Your task to perform on an android device: toggle improve location accuracy Image 0: 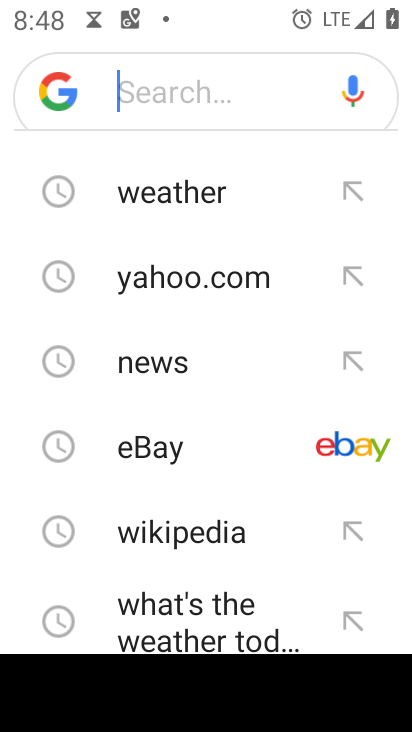
Step 0: press home button
Your task to perform on an android device: toggle improve location accuracy Image 1: 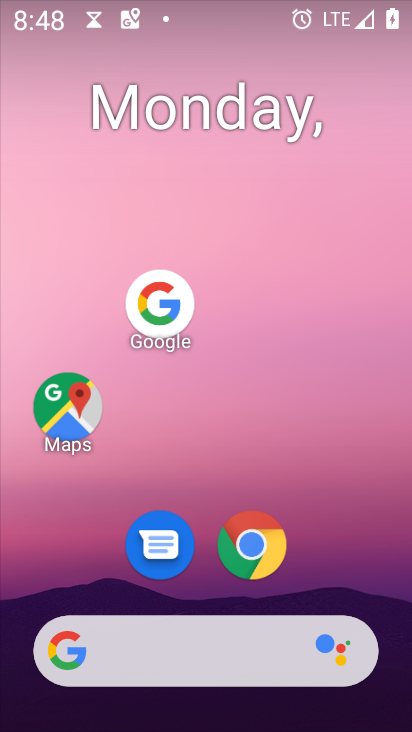
Step 1: drag from (211, 656) to (262, 136)
Your task to perform on an android device: toggle improve location accuracy Image 2: 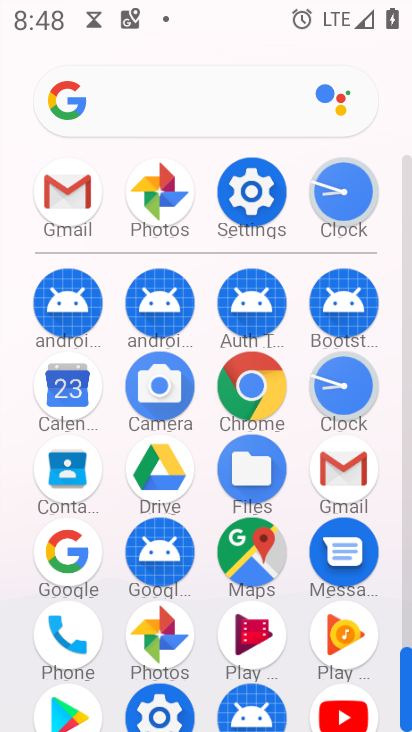
Step 2: click (266, 193)
Your task to perform on an android device: toggle improve location accuracy Image 3: 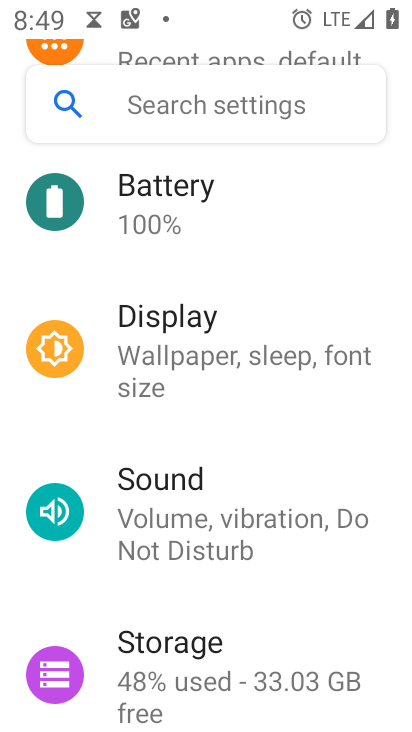
Step 3: drag from (259, 230) to (206, 669)
Your task to perform on an android device: toggle improve location accuracy Image 4: 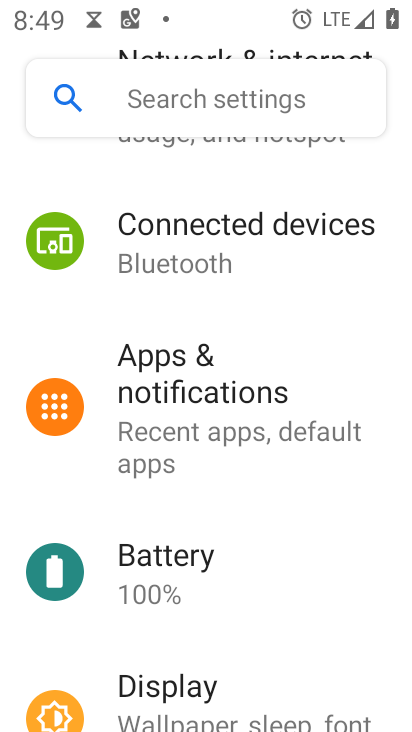
Step 4: drag from (295, 330) to (267, 650)
Your task to perform on an android device: toggle improve location accuracy Image 5: 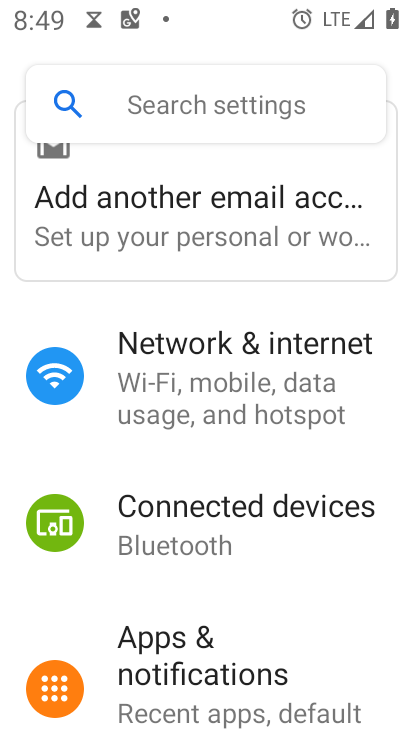
Step 5: drag from (281, 676) to (345, 150)
Your task to perform on an android device: toggle improve location accuracy Image 6: 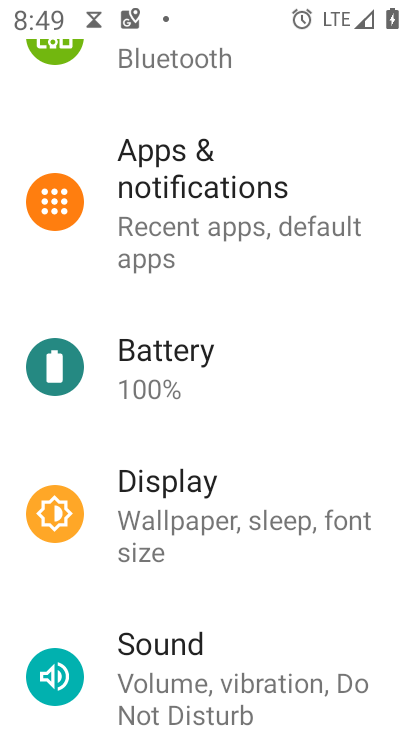
Step 6: drag from (250, 639) to (311, 83)
Your task to perform on an android device: toggle improve location accuracy Image 7: 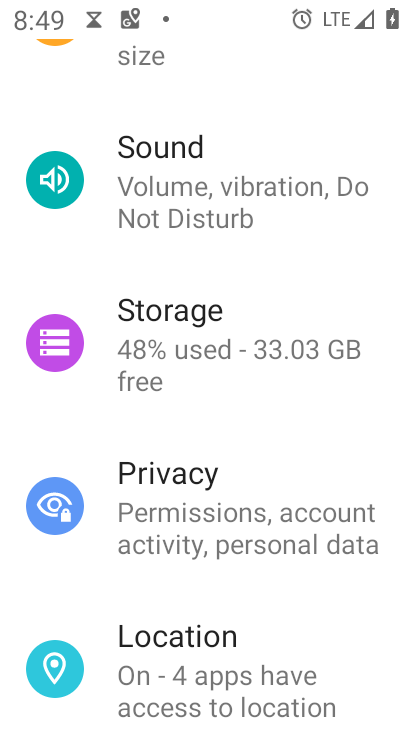
Step 7: click (213, 650)
Your task to perform on an android device: toggle improve location accuracy Image 8: 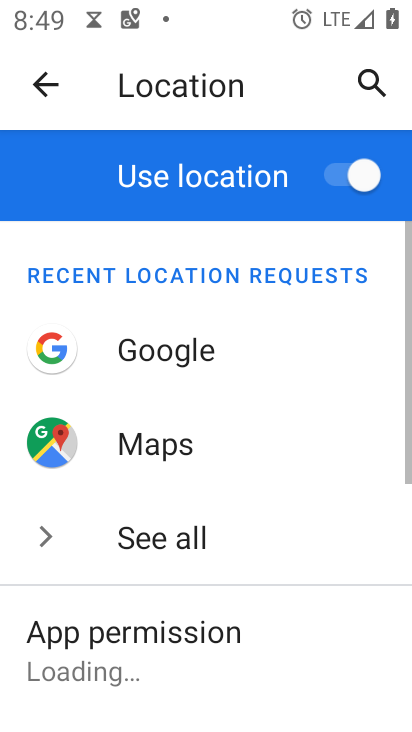
Step 8: drag from (215, 670) to (308, 106)
Your task to perform on an android device: toggle improve location accuracy Image 9: 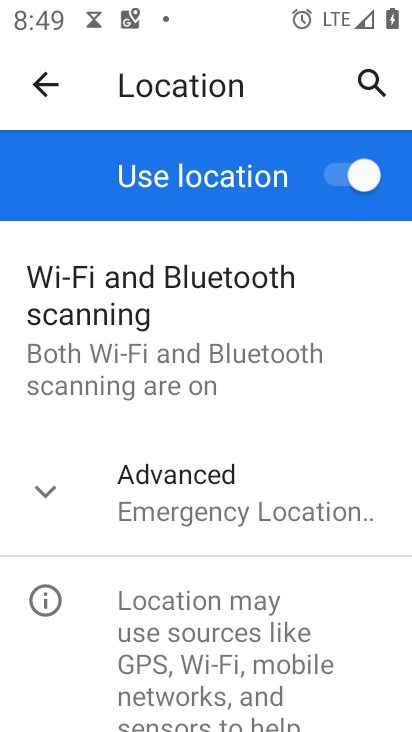
Step 9: click (188, 479)
Your task to perform on an android device: toggle improve location accuracy Image 10: 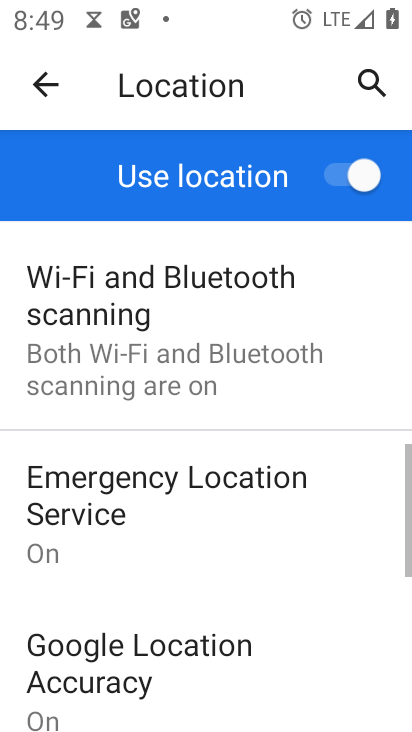
Step 10: drag from (265, 616) to (321, 315)
Your task to perform on an android device: toggle improve location accuracy Image 11: 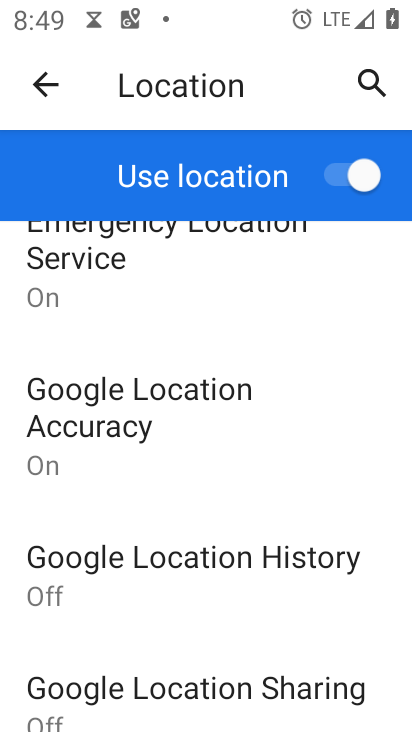
Step 11: click (130, 433)
Your task to perform on an android device: toggle improve location accuracy Image 12: 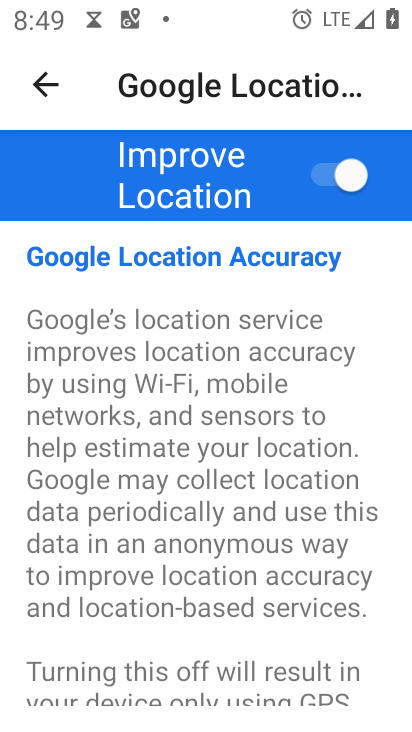
Step 12: click (332, 178)
Your task to perform on an android device: toggle improve location accuracy Image 13: 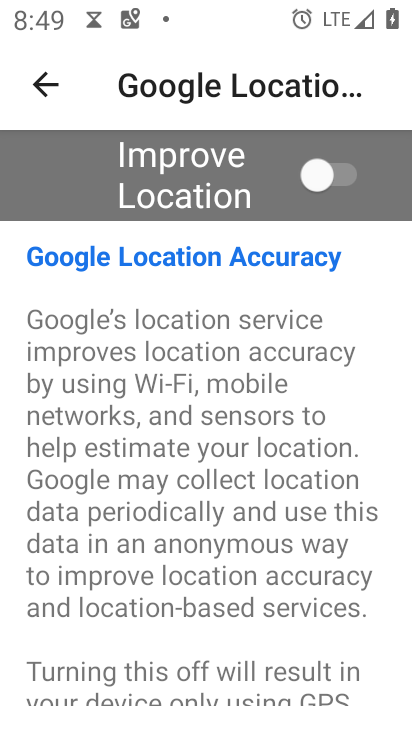
Step 13: task complete